Your task to perform on an android device: see tabs open on other devices in the chrome app Image 0: 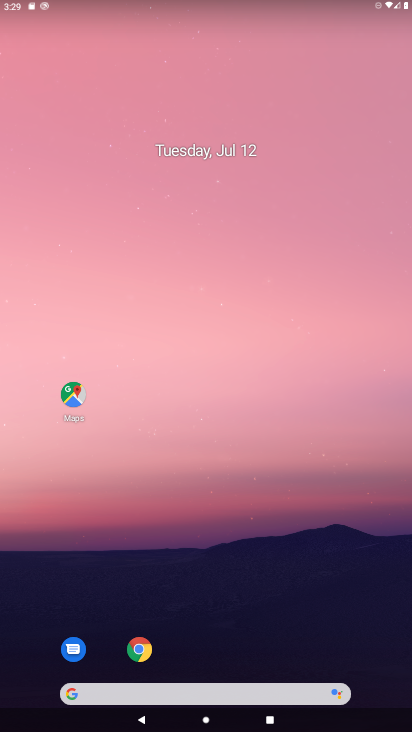
Step 0: drag from (271, 645) to (205, 225)
Your task to perform on an android device: see tabs open on other devices in the chrome app Image 1: 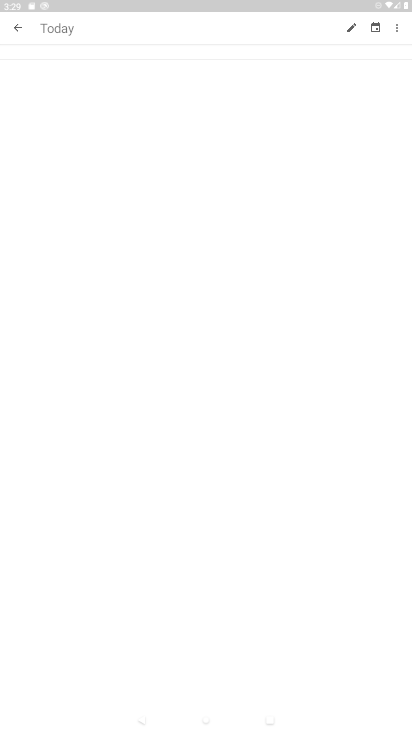
Step 1: press home button
Your task to perform on an android device: see tabs open on other devices in the chrome app Image 2: 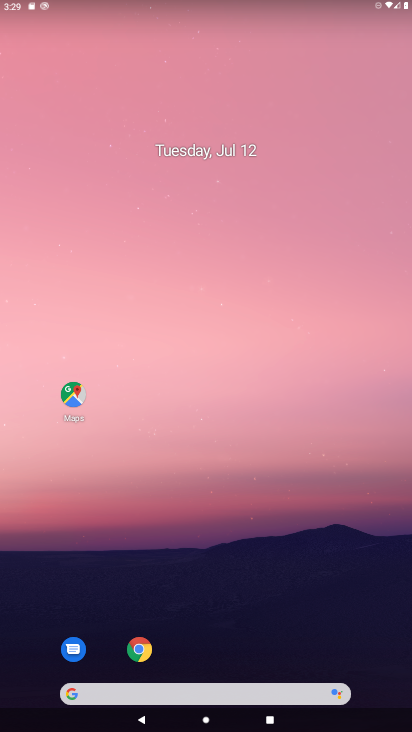
Step 2: drag from (290, 635) to (228, 148)
Your task to perform on an android device: see tabs open on other devices in the chrome app Image 3: 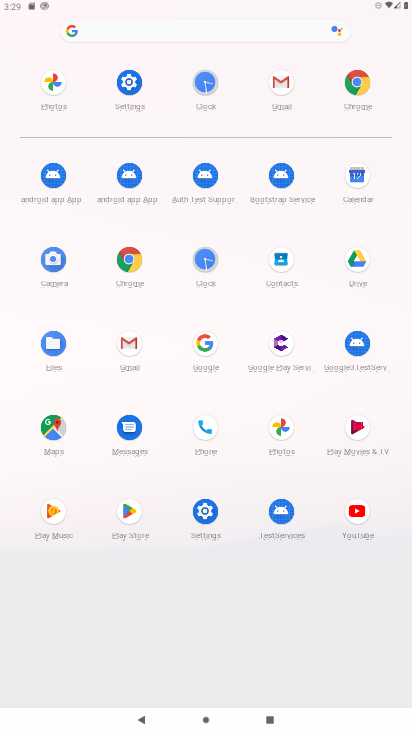
Step 3: click (352, 86)
Your task to perform on an android device: see tabs open on other devices in the chrome app Image 4: 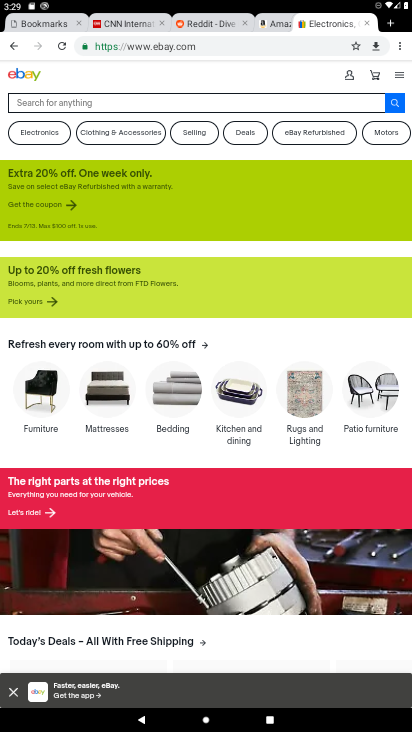
Step 4: click (397, 49)
Your task to perform on an android device: see tabs open on other devices in the chrome app Image 5: 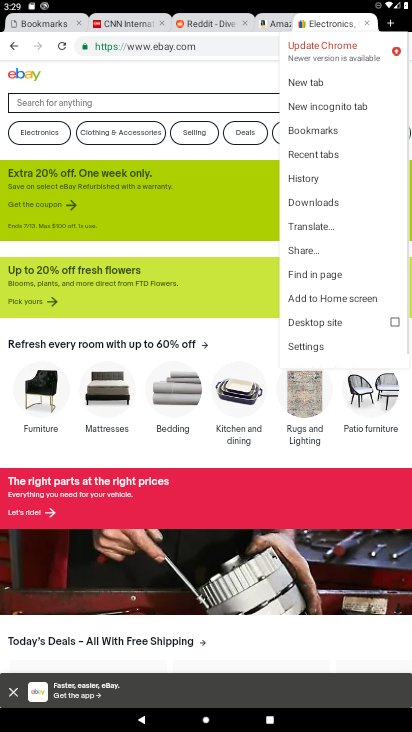
Step 5: click (317, 154)
Your task to perform on an android device: see tabs open on other devices in the chrome app Image 6: 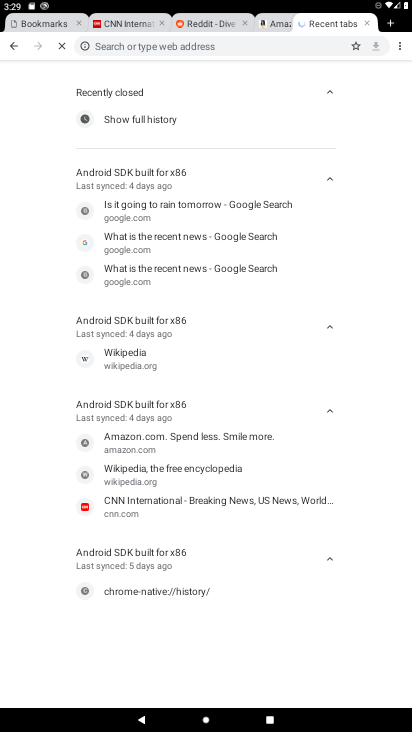
Step 6: task complete